Your task to perform on an android device: make emails show in primary in the gmail app Image 0: 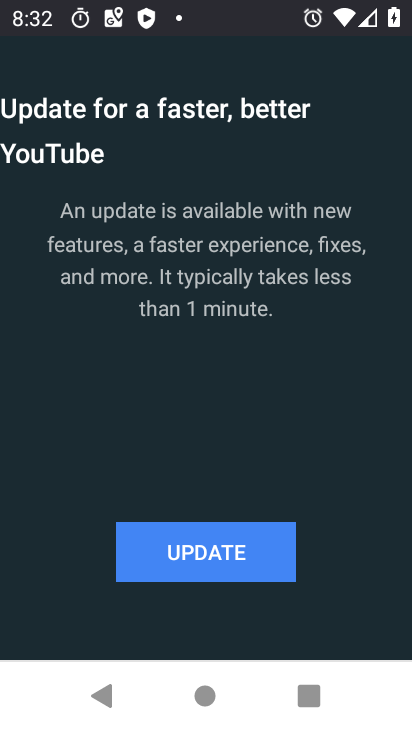
Step 0: press home button
Your task to perform on an android device: make emails show in primary in the gmail app Image 1: 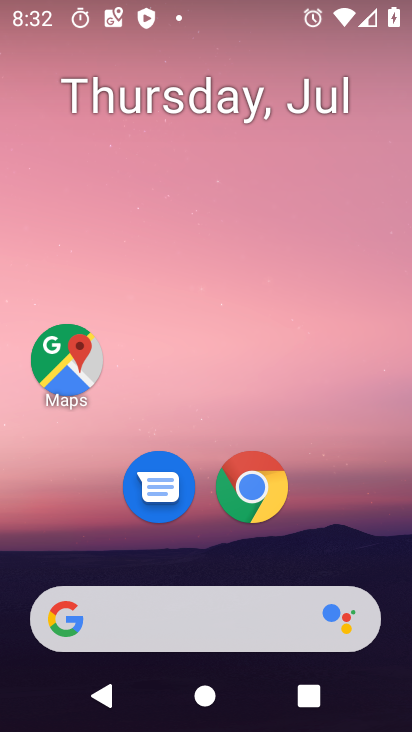
Step 1: drag from (217, 614) to (199, 225)
Your task to perform on an android device: make emails show in primary in the gmail app Image 2: 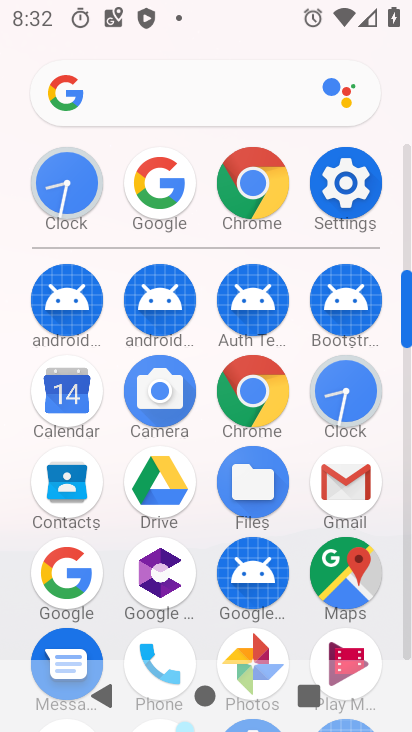
Step 2: click (350, 486)
Your task to perform on an android device: make emails show in primary in the gmail app Image 3: 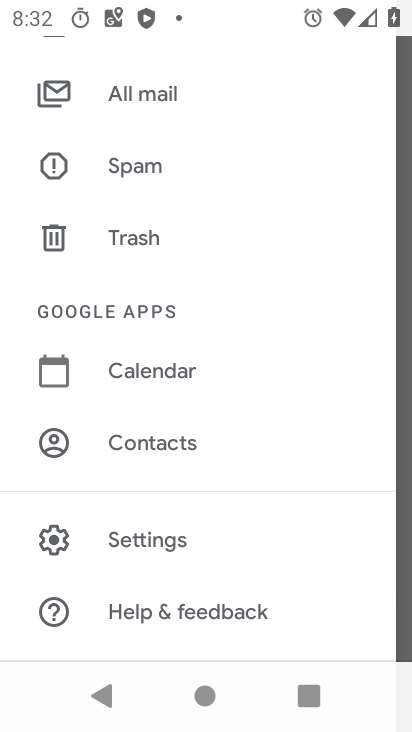
Step 3: click (146, 537)
Your task to perform on an android device: make emails show in primary in the gmail app Image 4: 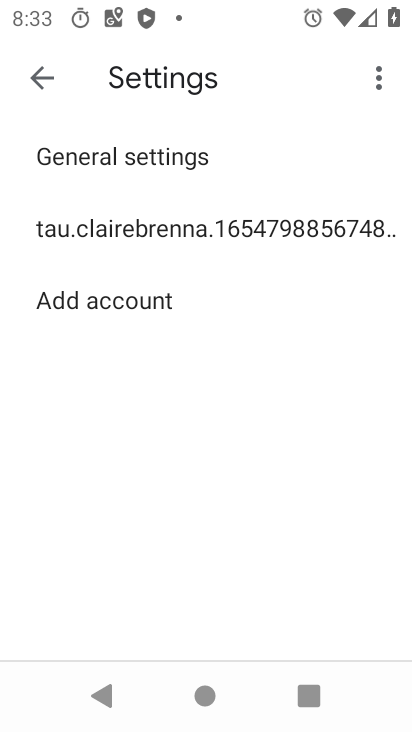
Step 4: click (110, 233)
Your task to perform on an android device: make emails show in primary in the gmail app Image 5: 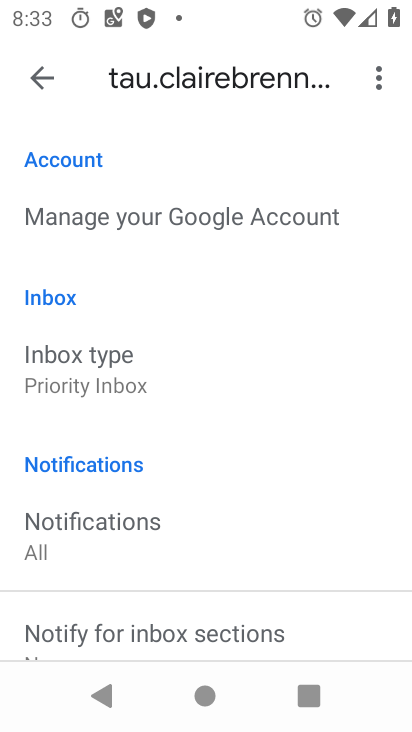
Step 5: task complete